Your task to perform on an android device: turn off smart reply in the gmail app Image 0: 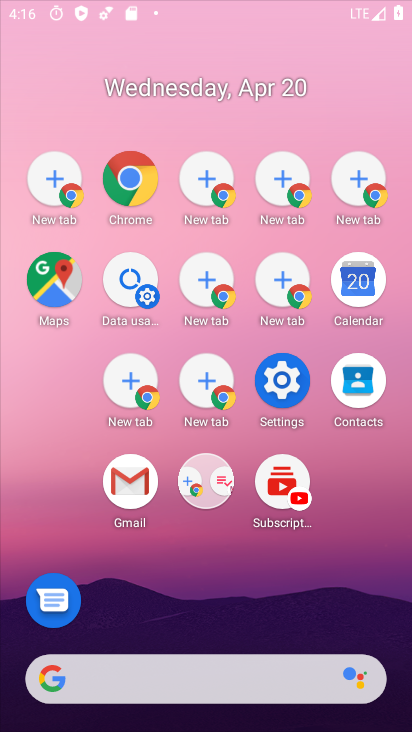
Step 0: click (2, 186)
Your task to perform on an android device: turn off smart reply in the gmail app Image 1: 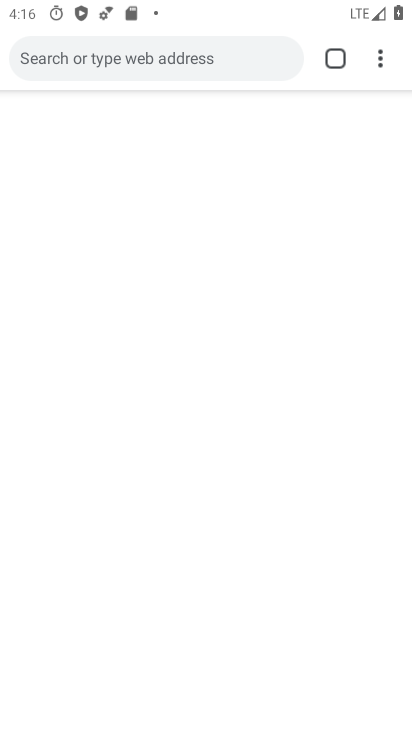
Step 1: drag from (289, 489) to (151, 125)
Your task to perform on an android device: turn off smart reply in the gmail app Image 2: 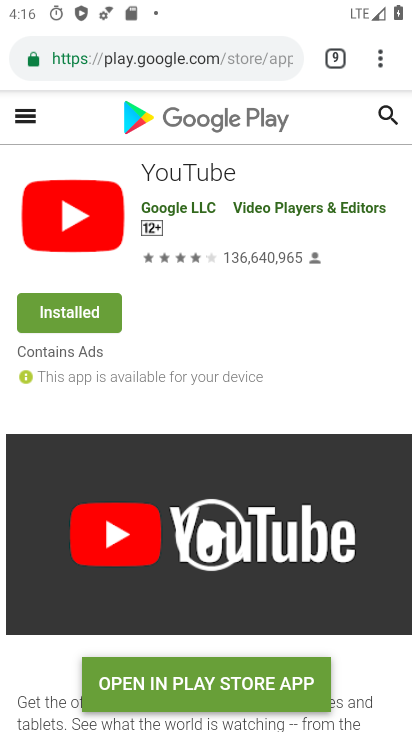
Step 2: press home button
Your task to perform on an android device: turn off smart reply in the gmail app Image 3: 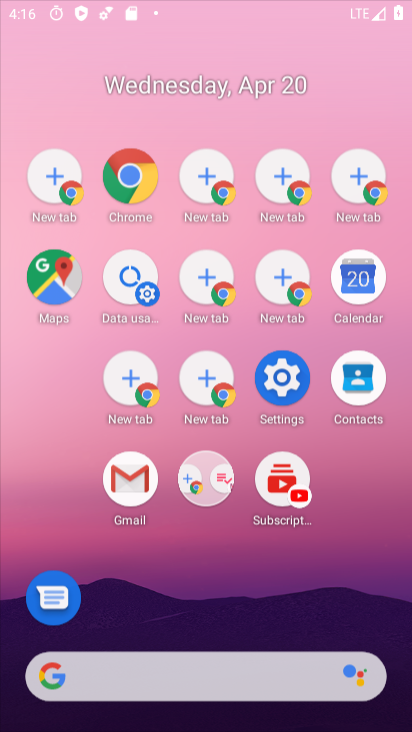
Step 3: press home button
Your task to perform on an android device: turn off smart reply in the gmail app Image 4: 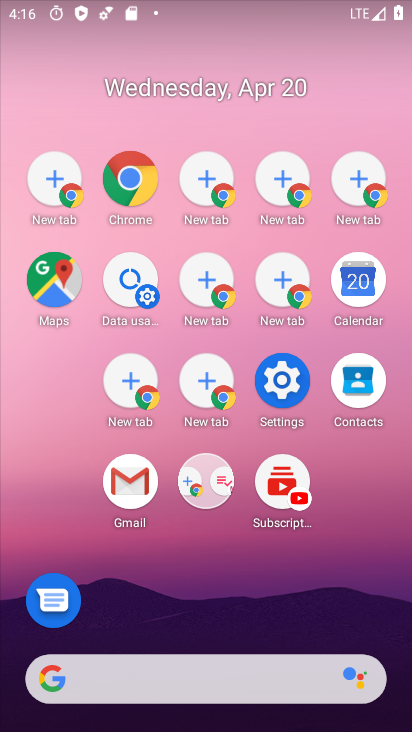
Step 4: drag from (215, 334) to (112, 0)
Your task to perform on an android device: turn off smart reply in the gmail app Image 5: 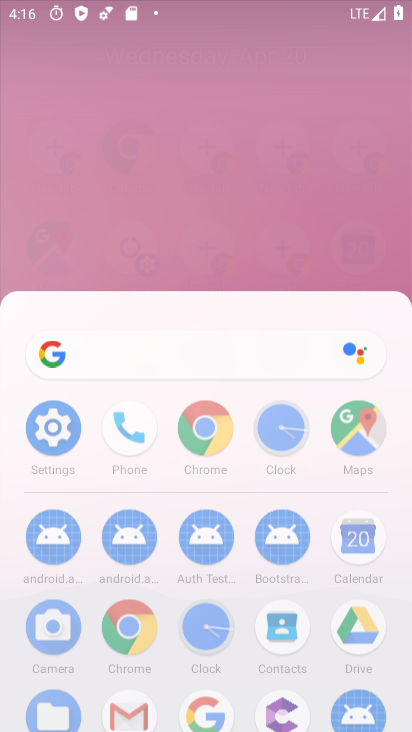
Step 5: drag from (293, 381) to (140, 0)
Your task to perform on an android device: turn off smart reply in the gmail app Image 6: 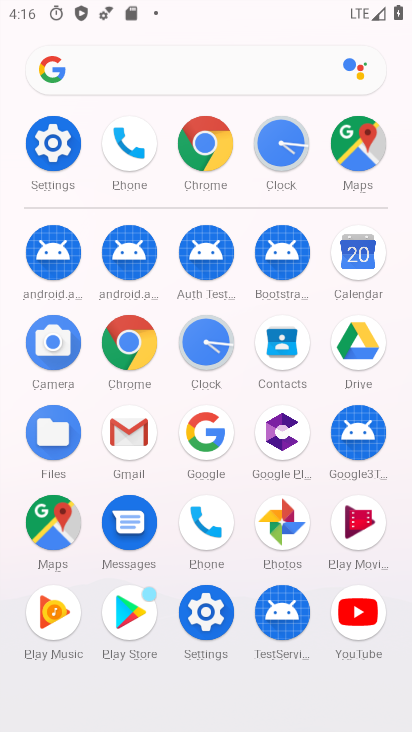
Step 6: click (130, 414)
Your task to perform on an android device: turn off smart reply in the gmail app Image 7: 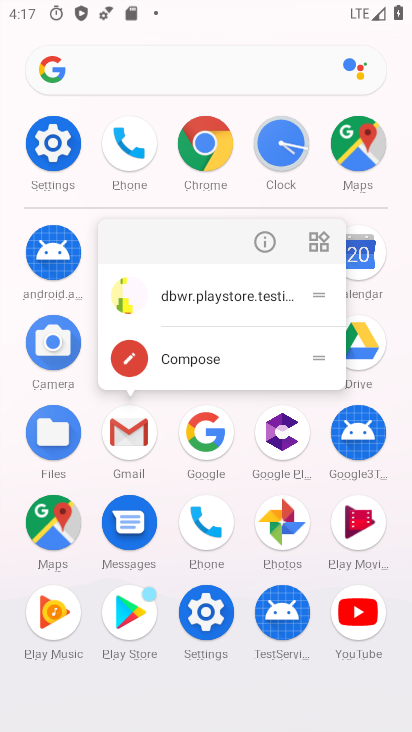
Step 7: click (122, 425)
Your task to perform on an android device: turn off smart reply in the gmail app Image 8: 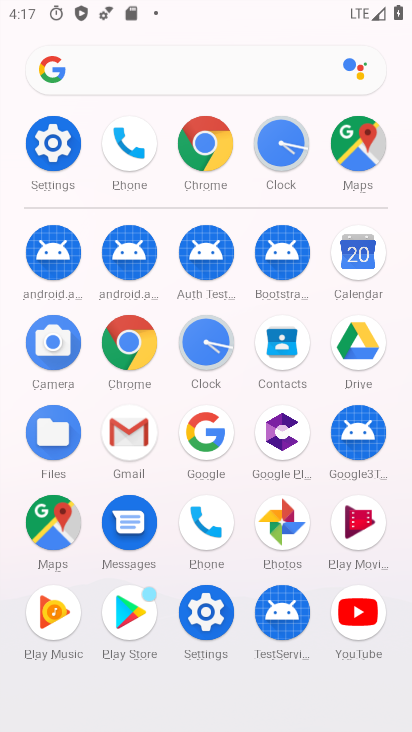
Step 8: click (126, 448)
Your task to perform on an android device: turn off smart reply in the gmail app Image 9: 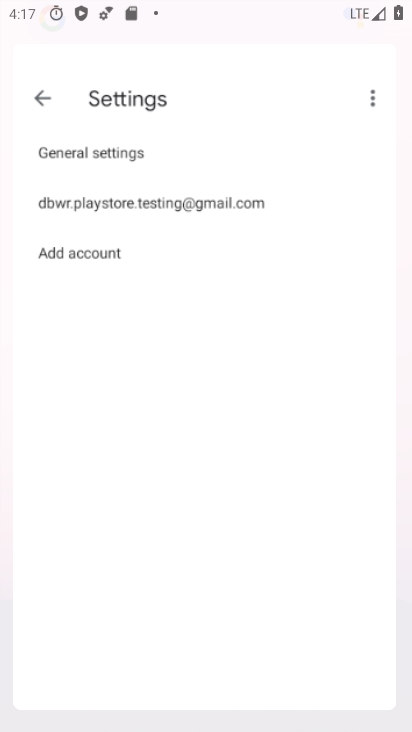
Step 9: click (126, 448)
Your task to perform on an android device: turn off smart reply in the gmail app Image 10: 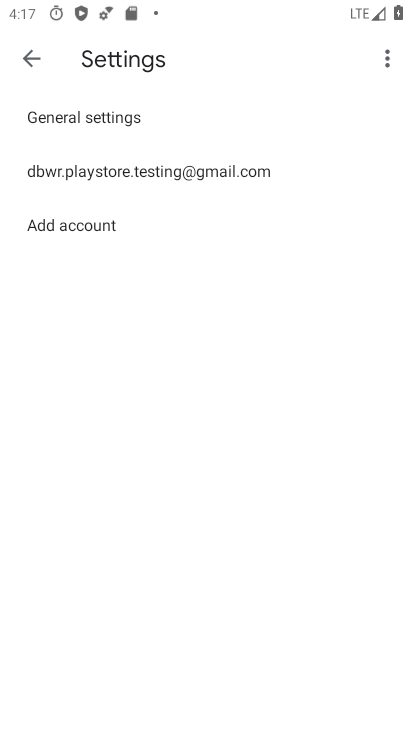
Step 10: click (27, 51)
Your task to perform on an android device: turn off smart reply in the gmail app Image 11: 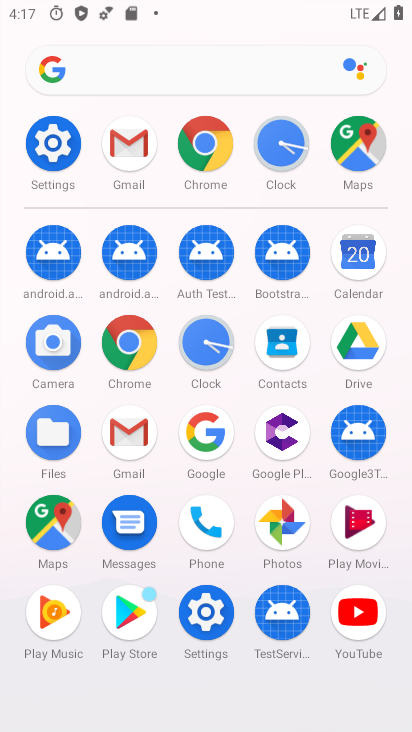
Step 11: click (119, 440)
Your task to perform on an android device: turn off smart reply in the gmail app Image 12: 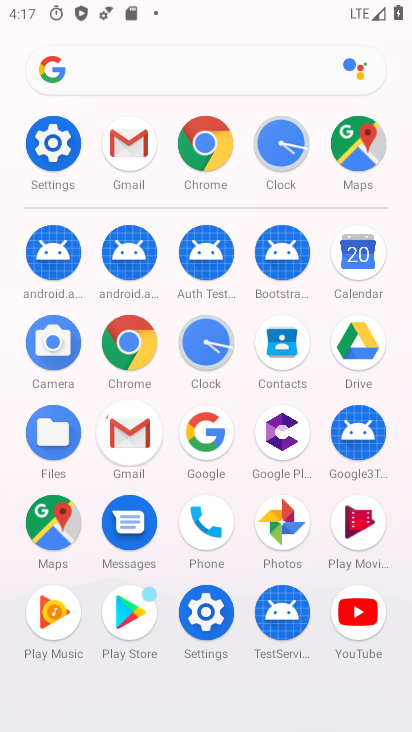
Step 12: click (119, 440)
Your task to perform on an android device: turn off smart reply in the gmail app Image 13: 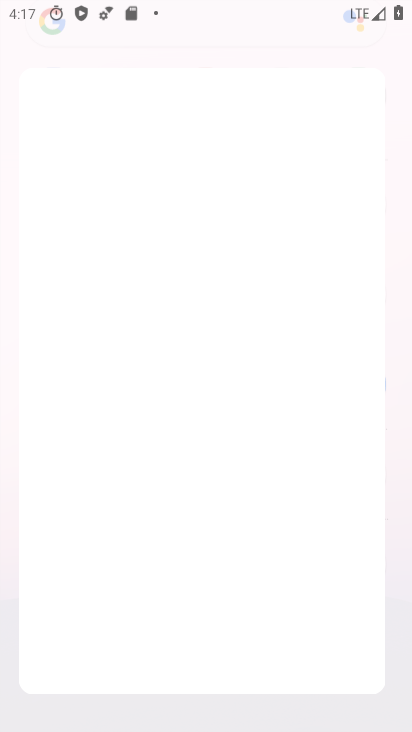
Step 13: click (119, 440)
Your task to perform on an android device: turn off smart reply in the gmail app Image 14: 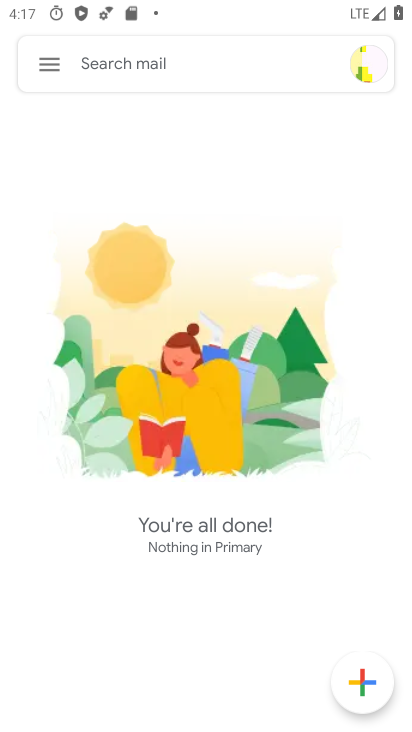
Step 14: click (52, 65)
Your task to perform on an android device: turn off smart reply in the gmail app Image 15: 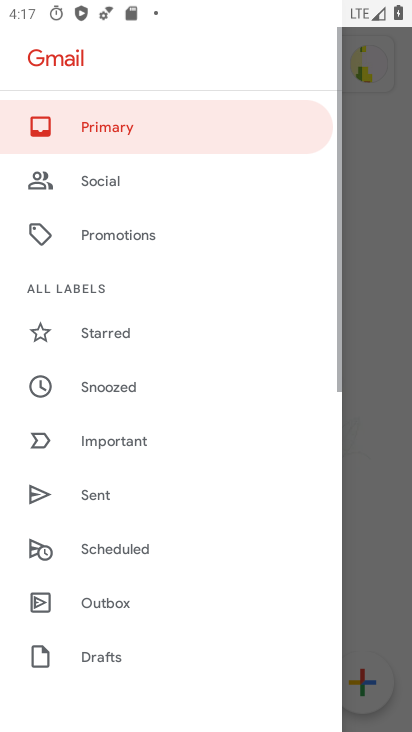
Step 15: drag from (108, 316) to (108, 191)
Your task to perform on an android device: turn off smart reply in the gmail app Image 16: 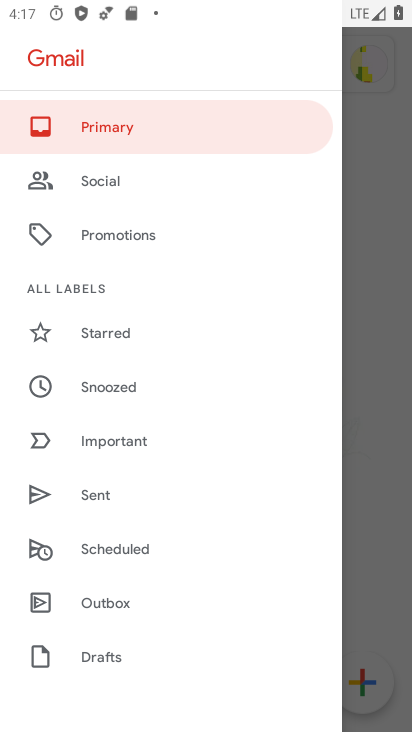
Step 16: drag from (170, 636) to (145, 18)
Your task to perform on an android device: turn off smart reply in the gmail app Image 17: 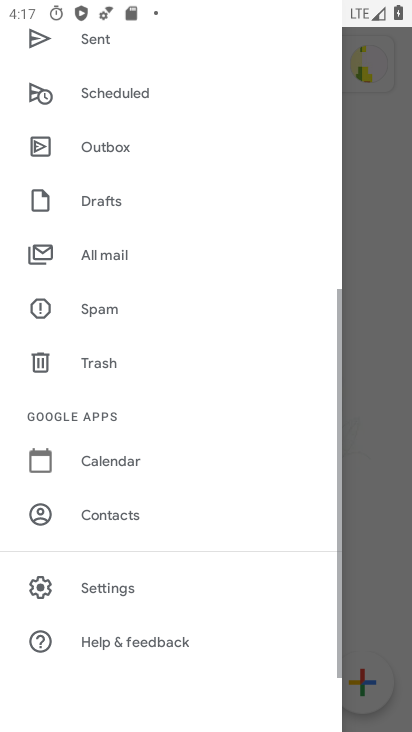
Step 17: click (101, 584)
Your task to perform on an android device: turn off smart reply in the gmail app Image 18: 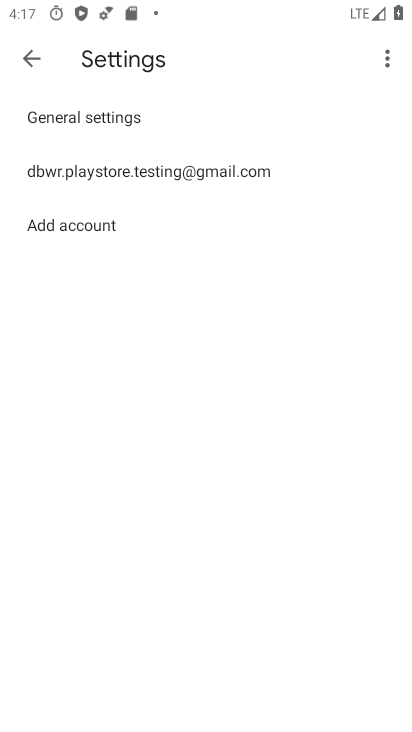
Step 18: click (111, 175)
Your task to perform on an android device: turn off smart reply in the gmail app Image 19: 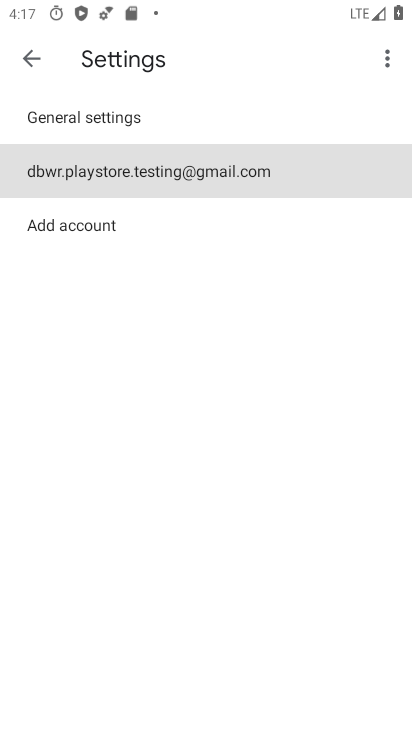
Step 19: click (111, 175)
Your task to perform on an android device: turn off smart reply in the gmail app Image 20: 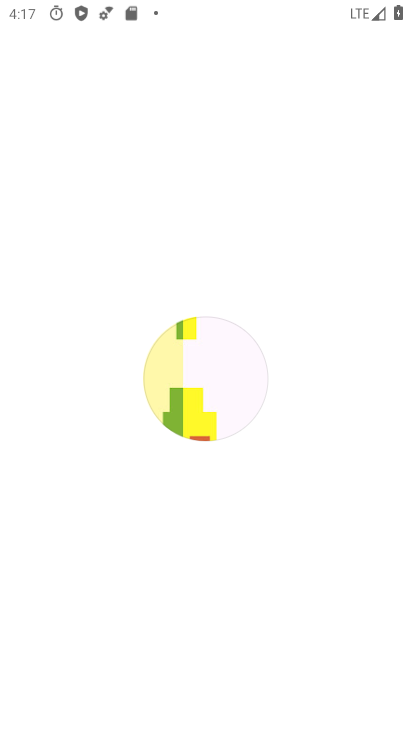
Step 20: press back button
Your task to perform on an android device: turn off smart reply in the gmail app Image 21: 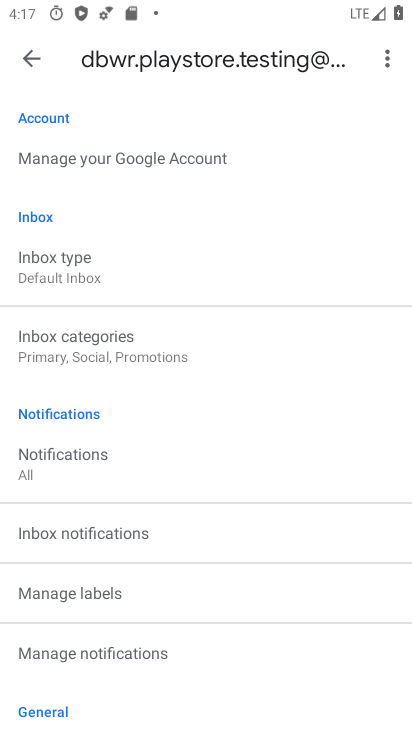
Step 21: drag from (105, 618) to (114, 113)
Your task to perform on an android device: turn off smart reply in the gmail app Image 22: 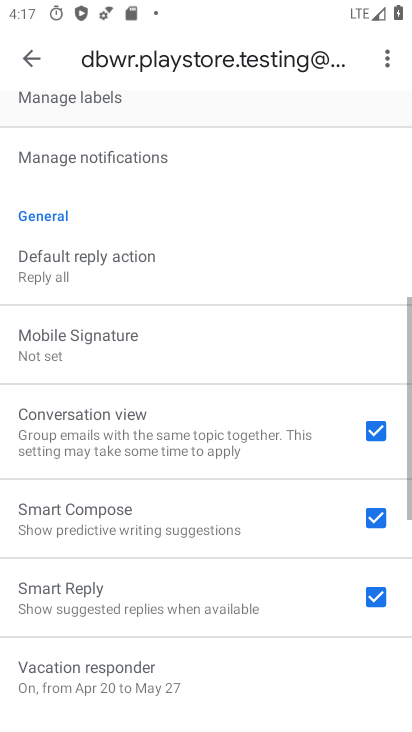
Step 22: drag from (143, 496) to (125, 204)
Your task to perform on an android device: turn off smart reply in the gmail app Image 23: 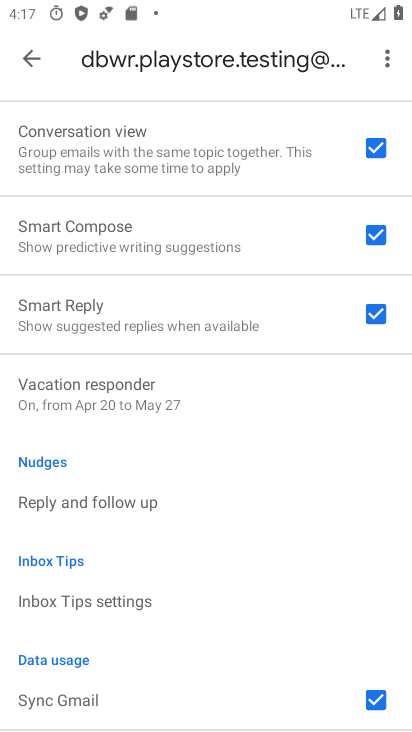
Step 23: click (384, 317)
Your task to perform on an android device: turn off smart reply in the gmail app Image 24: 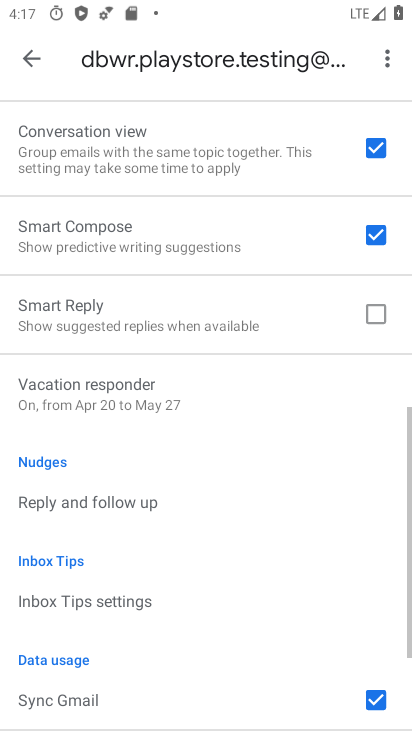
Step 24: task complete